Your task to perform on an android device: Open calendar and show me the first week of next month Image 0: 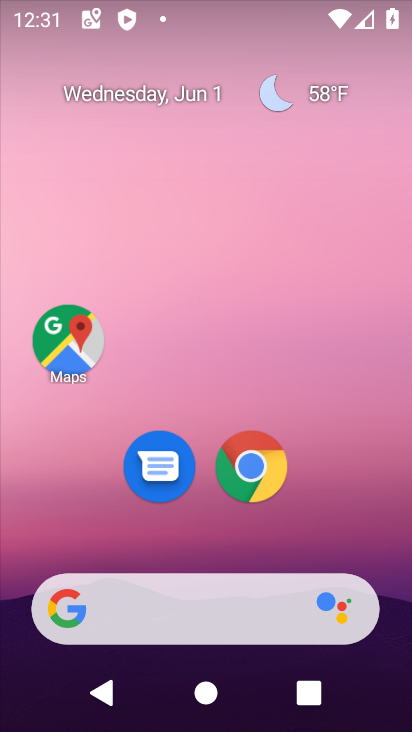
Step 0: drag from (379, 566) to (302, 231)
Your task to perform on an android device: Open calendar and show me the first week of next month Image 1: 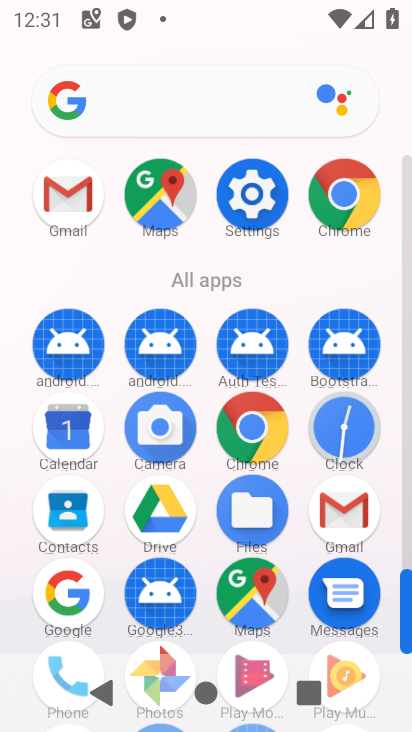
Step 1: click (72, 439)
Your task to perform on an android device: Open calendar and show me the first week of next month Image 2: 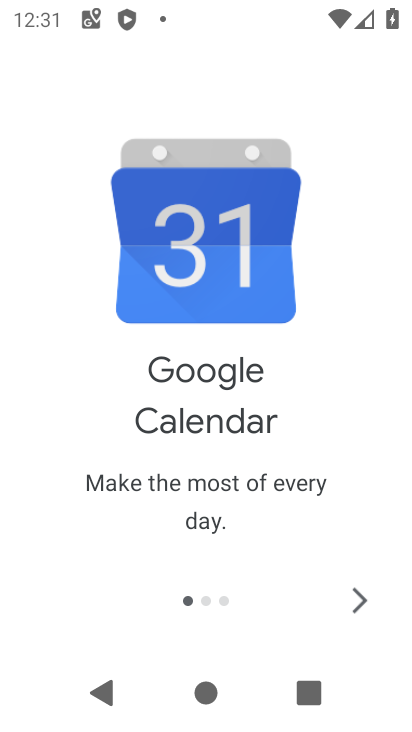
Step 2: click (356, 598)
Your task to perform on an android device: Open calendar and show me the first week of next month Image 3: 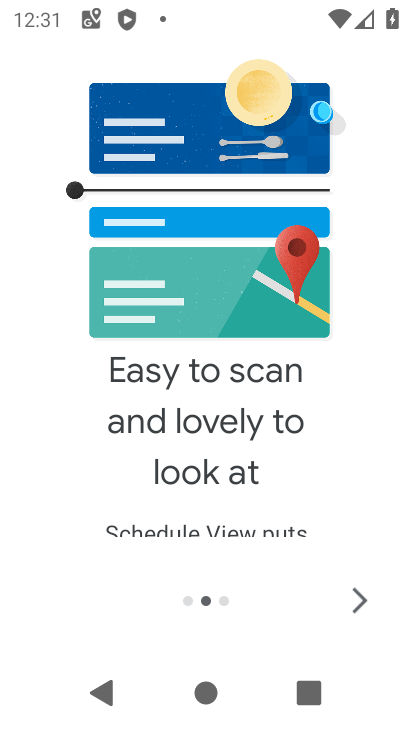
Step 3: click (356, 598)
Your task to perform on an android device: Open calendar and show me the first week of next month Image 4: 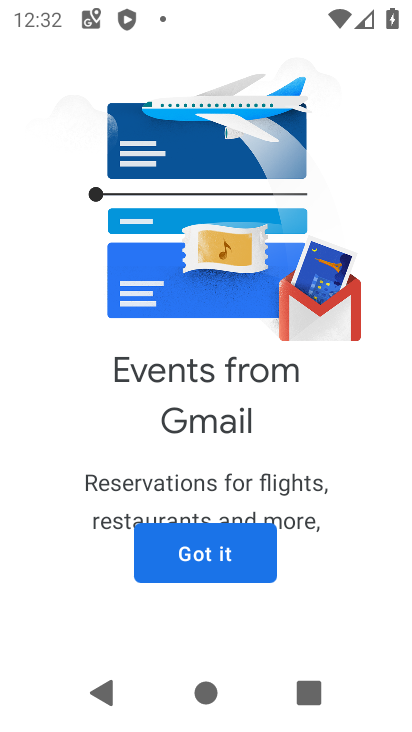
Step 4: click (212, 546)
Your task to perform on an android device: Open calendar and show me the first week of next month Image 5: 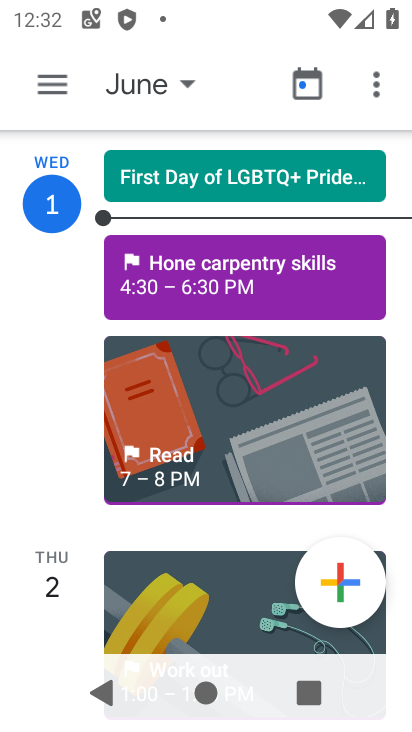
Step 5: click (59, 95)
Your task to perform on an android device: Open calendar and show me the first week of next month Image 6: 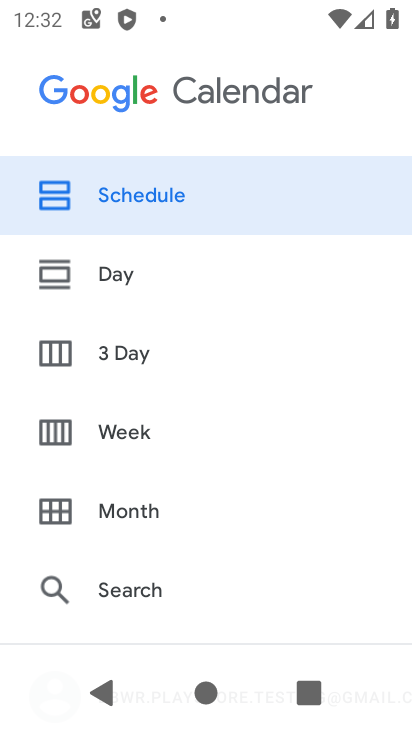
Step 6: click (173, 426)
Your task to perform on an android device: Open calendar and show me the first week of next month Image 7: 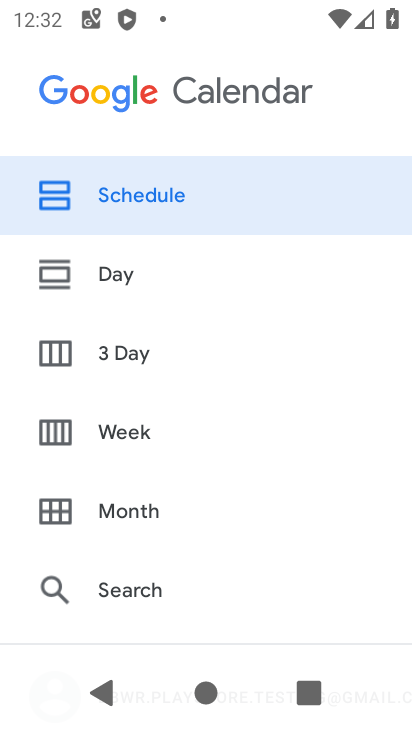
Step 7: click (160, 433)
Your task to perform on an android device: Open calendar and show me the first week of next month Image 8: 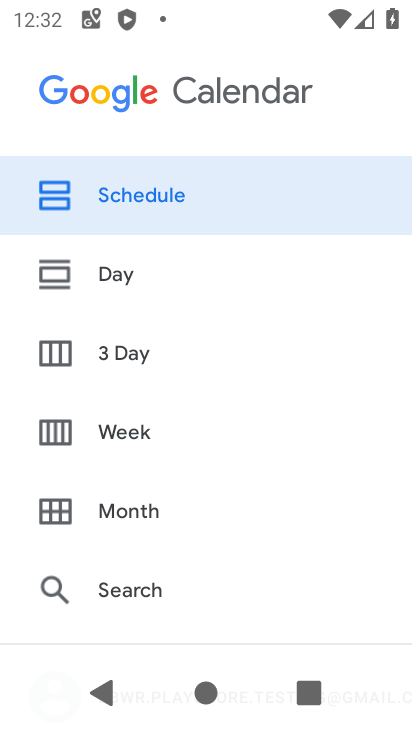
Step 8: click (81, 428)
Your task to perform on an android device: Open calendar and show me the first week of next month Image 9: 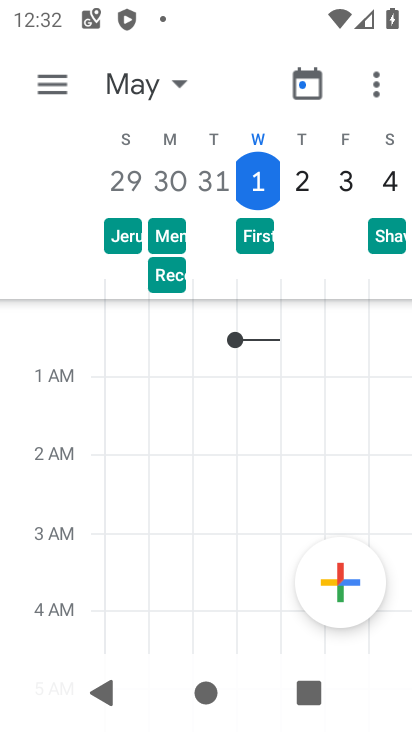
Step 9: click (160, 74)
Your task to perform on an android device: Open calendar and show me the first week of next month Image 10: 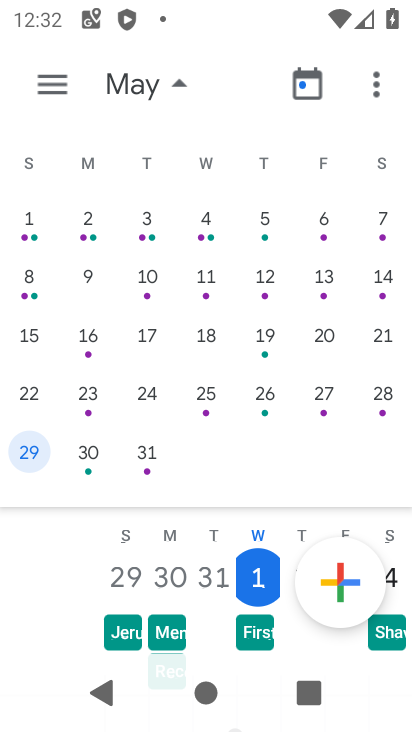
Step 10: drag from (360, 304) to (41, 297)
Your task to perform on an android device: Open calendar and show me the first week of next month Image 11: 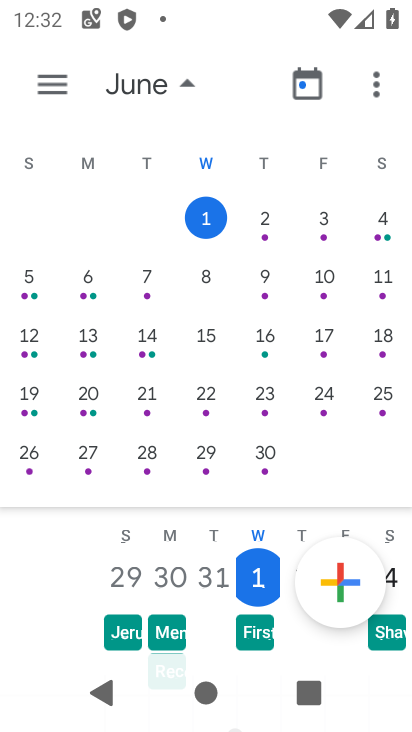
Step 11: click (216, 222)
Your task to perform on an android device: Open calendar and show me the first week of next month Image 12: 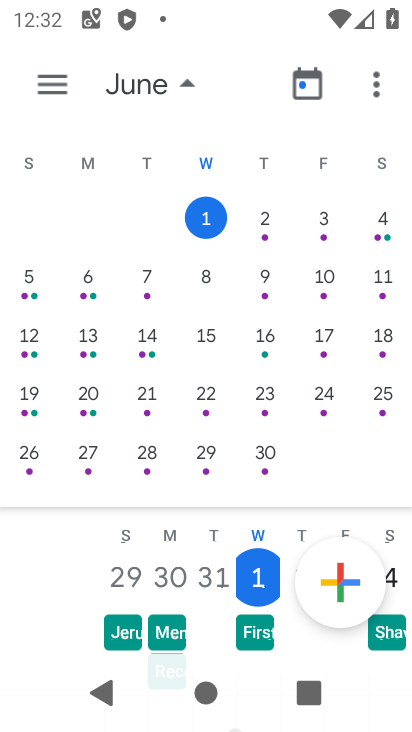
Step 12: task complete